Your task to perform on an android device: toggle pop-ups in chrome Image 0: 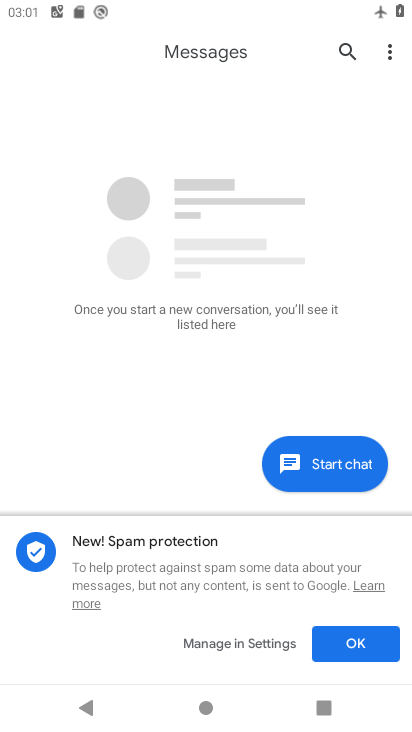
Step 0: press home button
Your task to perform on an android device: toggle pop-ups in chrome Image 1: 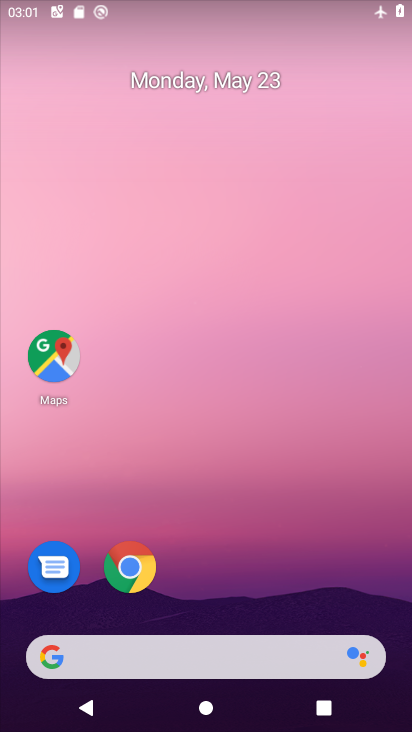
Step 1: drag from (252, 455) to (244, 135)
Your task to perform on an android device: toggle pop-ups in chrome Image 2: 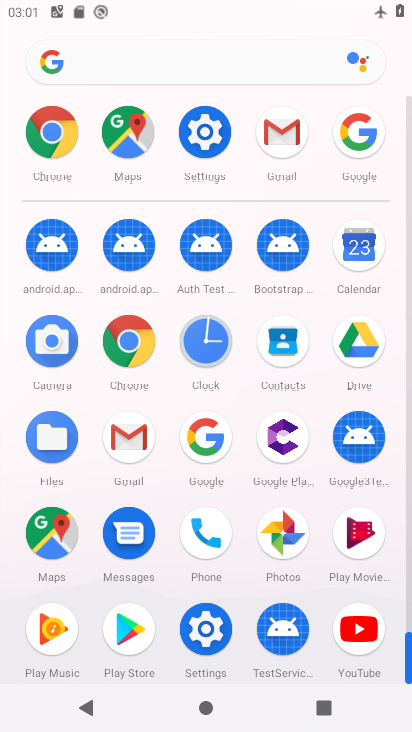
Step 2: click (127, 347)
Your task to perform on an android device: toggle pop-ups in chrome Image 3: 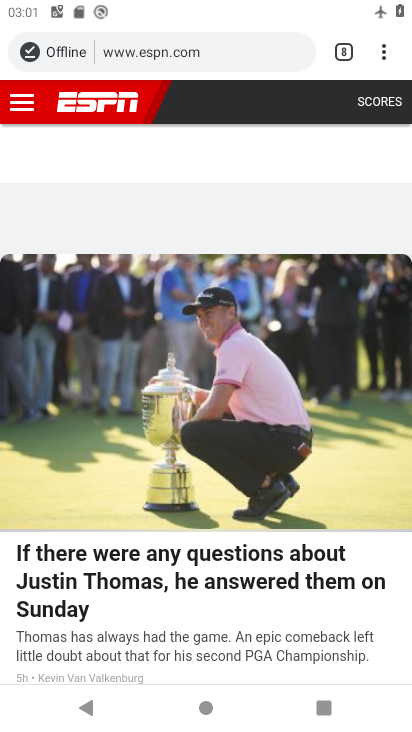
Step 3: click (383, 56)
Your task to perform on an android device: toggle pop-ups in chrome Image 4: 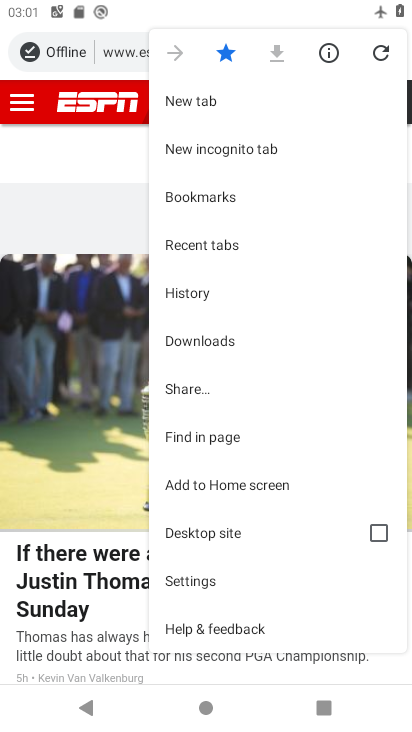
Step 4: click (247, 584)
Your task to perform on an android device: toggle pop-ups in chrome Image 5: 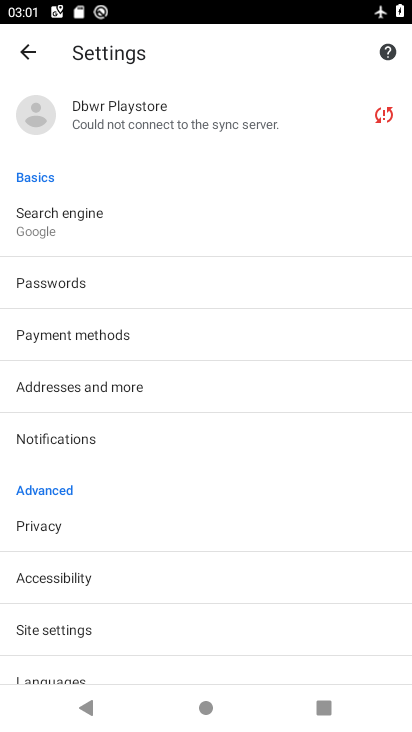
Step 5: drag from (149, 574) to (199, 322)
Your task to perform on an android device: toggle pop-ups in chrome Image 6: 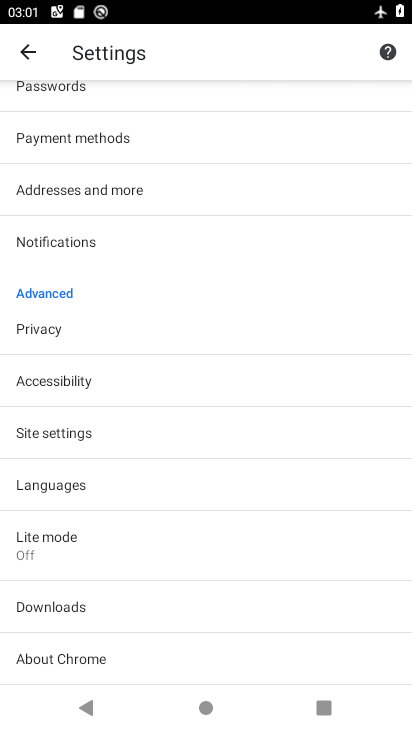
Step 6: click (85, 435)
Your task to perform on an android device: toggle pop-ups in chrome Image 7: 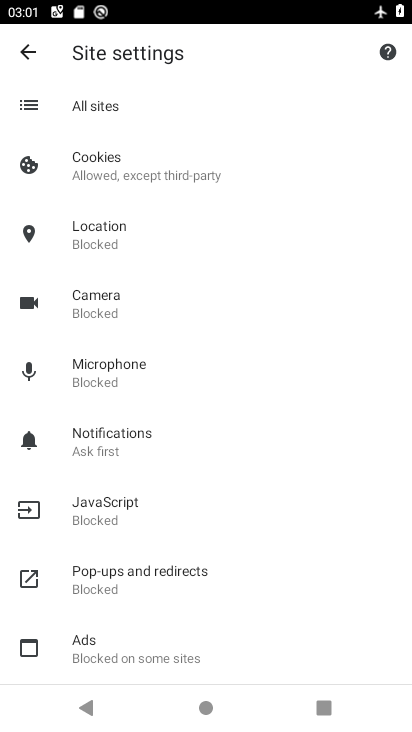
Step 7: click (110, 589)
Your task to perform on an android device: toggle pop-ups in chrome Image 8: 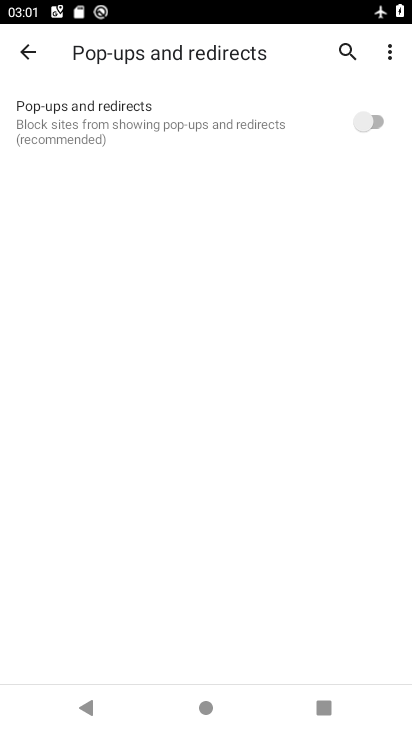
Step 8: click (373, 119)
Your task to perform on an android device: toggle pop-ups in chrome Image 9: 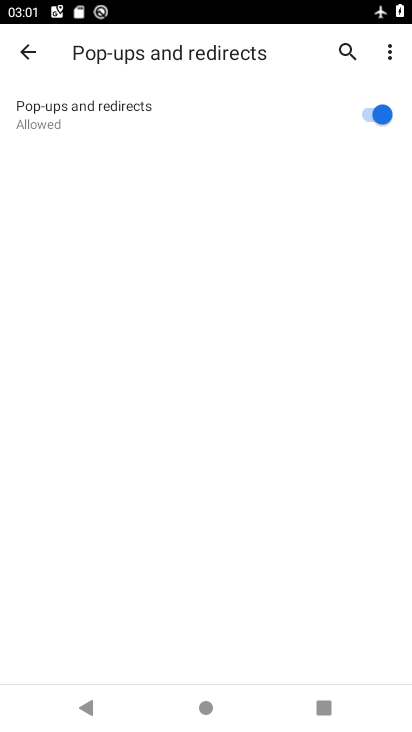
Step 9: task complete